Your task to perform on an android device: turn on sleep mode Image 0: 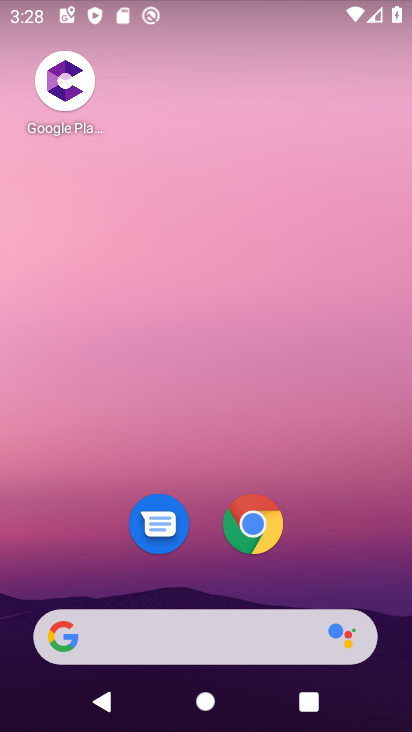
Step 0: drag from (43, 532) to (143, 12)
Your task to perform on an android device: turn on sleep mode Image 1: 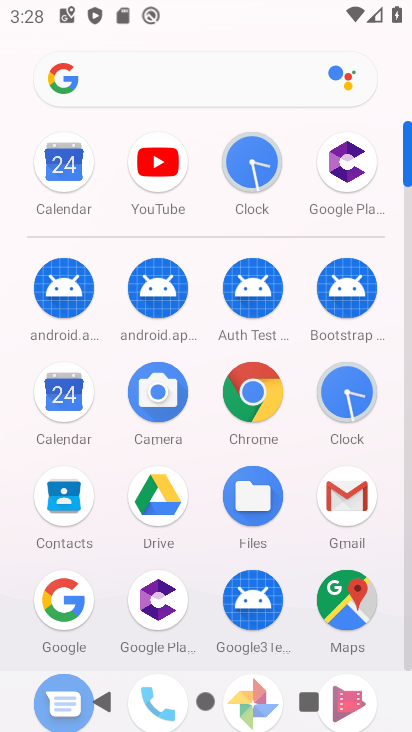
Step 1: drag from (210, 535) to (221, 285)
Your task to perform on an android device: turn on sleep mode Image 2: 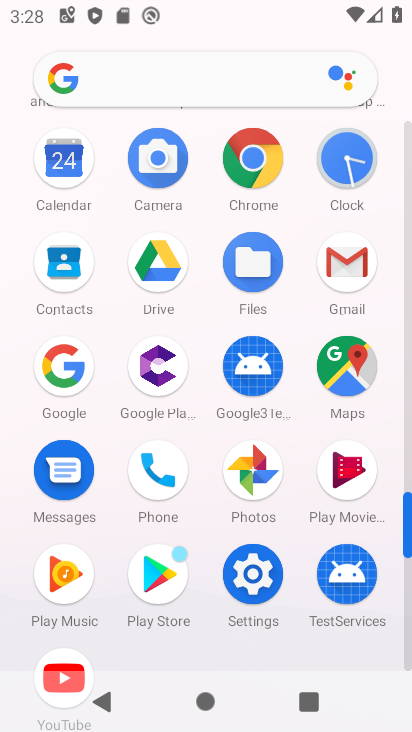
Step 2: click (255, 571)
Your task to perform on an android device: turn on sleep mode Image 3: 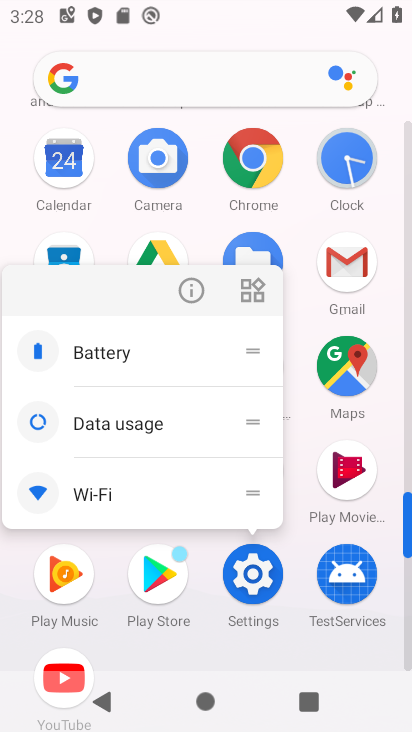
Step 3: click (255, 571)
Your task to perform on an android device: turn on sleep mode Image 4: 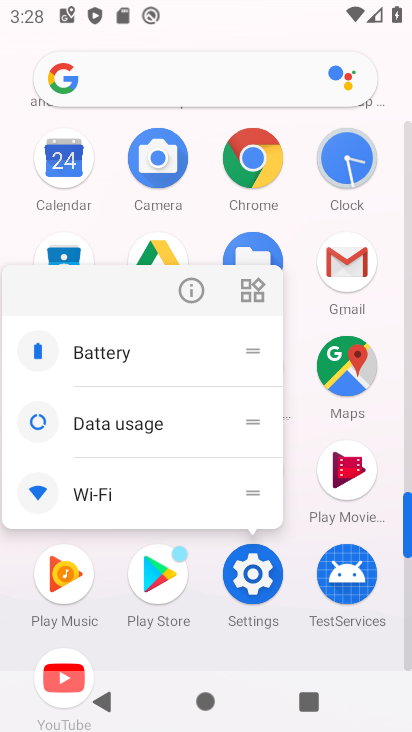
Step 4: click (250, 578)
Your task to perform on an android device: turn on sleep mode Image 5: 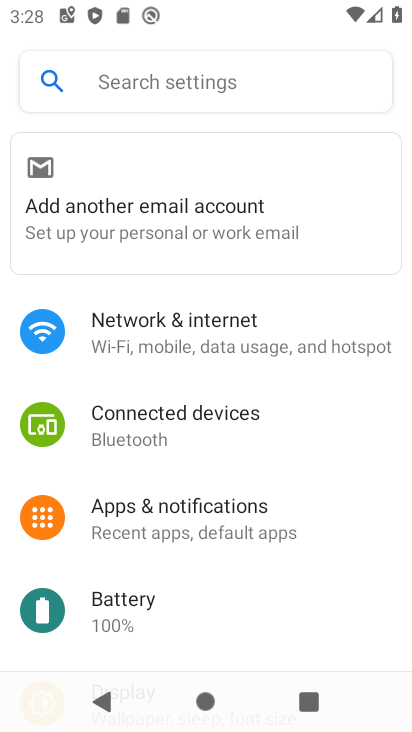
Step 5: drag from (250, 543) to (286, 248)
Your task to perform on an android device: turn on sleep mode Image 6: 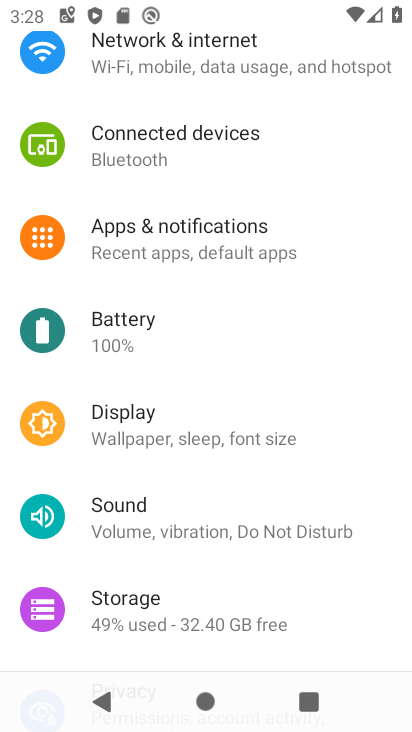
Step 6: drag from (217, 575) to (222, 182)
Your task to perform on an android device: turn on sleep mode Image 7: 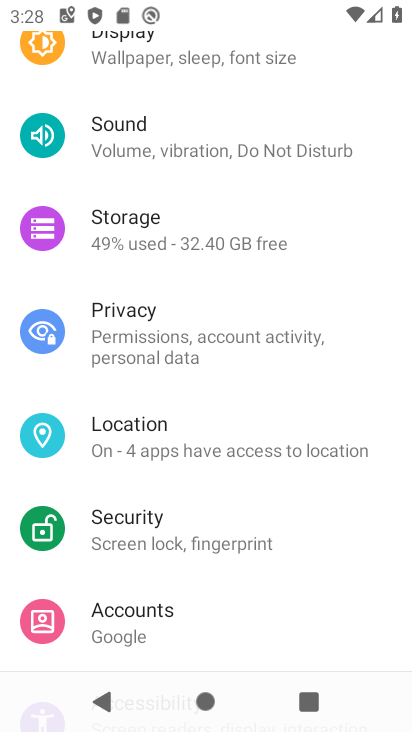
Step 7: drag from (219, 170) to (211, 285)
Your task to perform on an android device: turn on sleep mode Image 8: 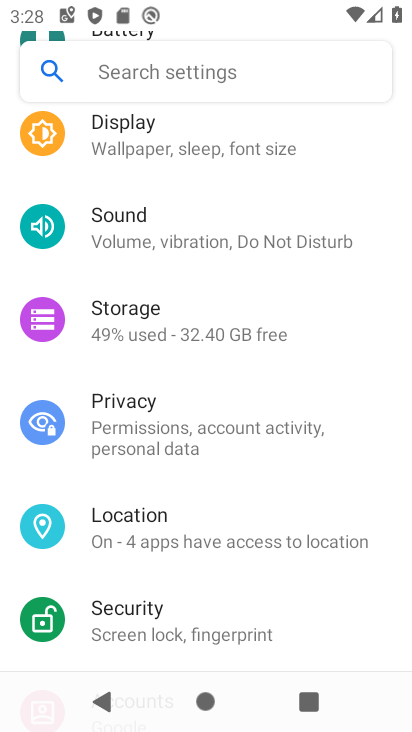
Step 8: click (226, 140)
Your task to perform on an android device: turn on sleep mode Image 9: 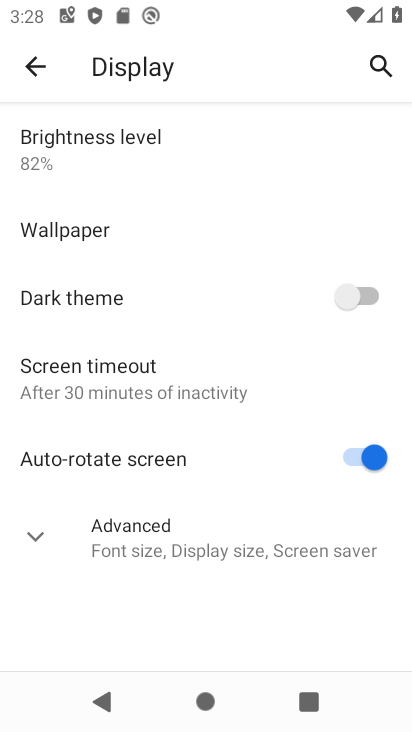
Step 9: click (30, 522)
Your task to perform on an android device: turn on sleep mode Image 10: 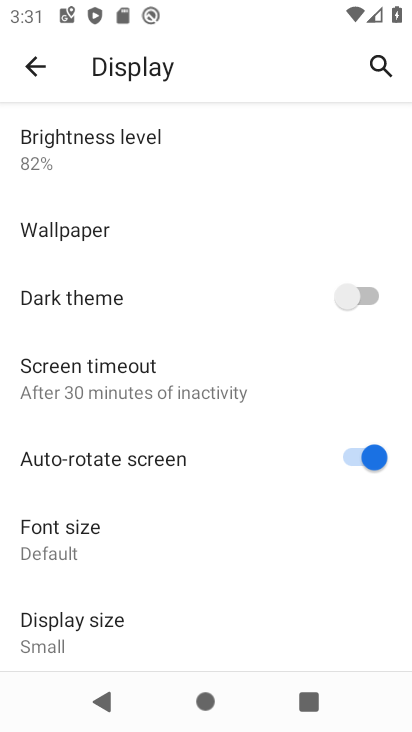
Step 10: task complete